Your task to perform on an android device: What is the news today? Image 0: 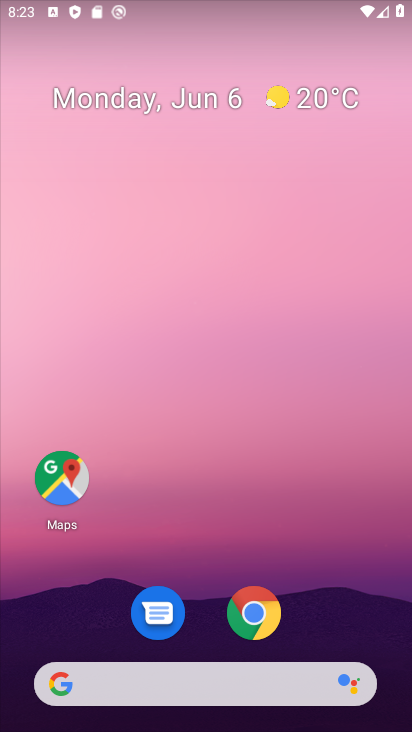
Step 0: drag from (1, 260) to (384, 331)
Your task to perform on an android device: What is the news today? Image 1: 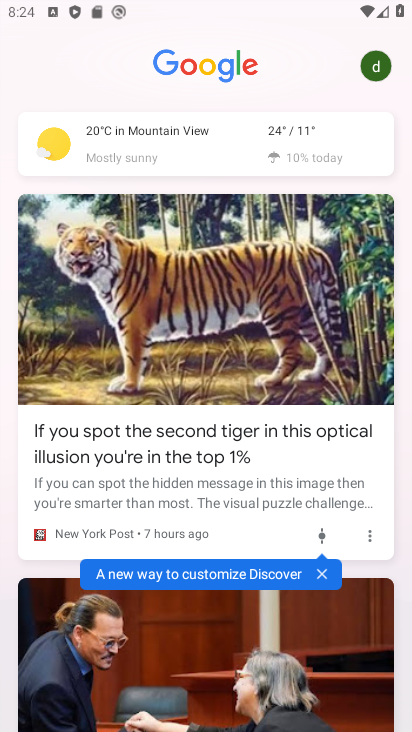
Step 1: task complete